Your task to perform on an android device: create a new album in the google photos Image 0: 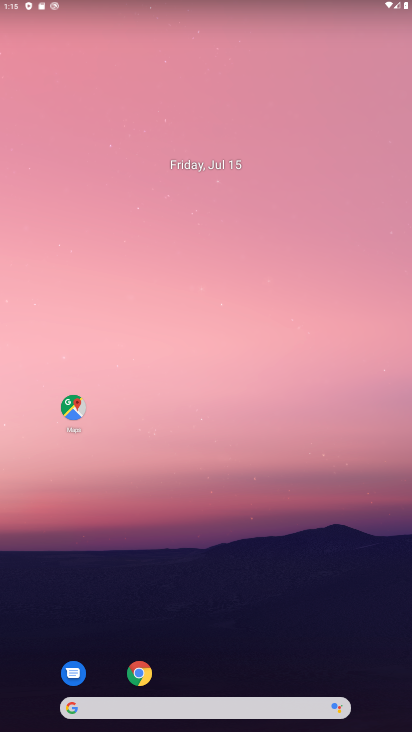
Step 0: drag from (252, 550) to (111, 49)
Your task to perform on an android device: create a new album in the google photos Image 1: 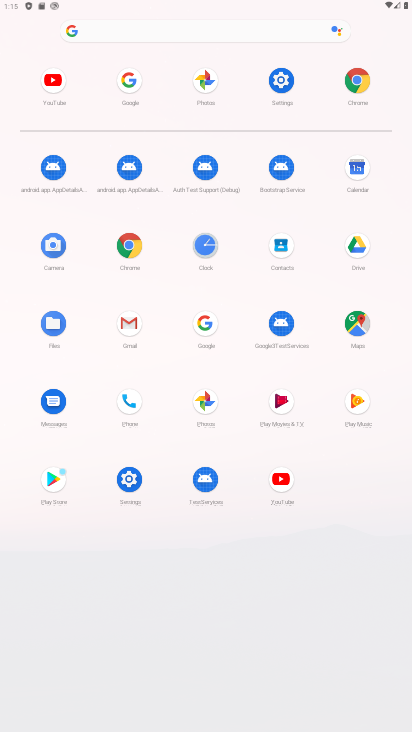
Step 1: click (192, 396)
Your task to perform on an android device: create a new album in the google photos Image 2: 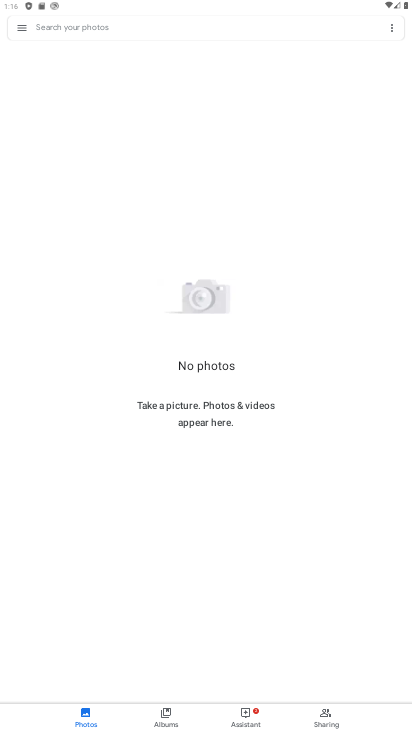
Step 2: click (168, 718)
Your task to perform on an android device: create a new album in the google photos Image 3: 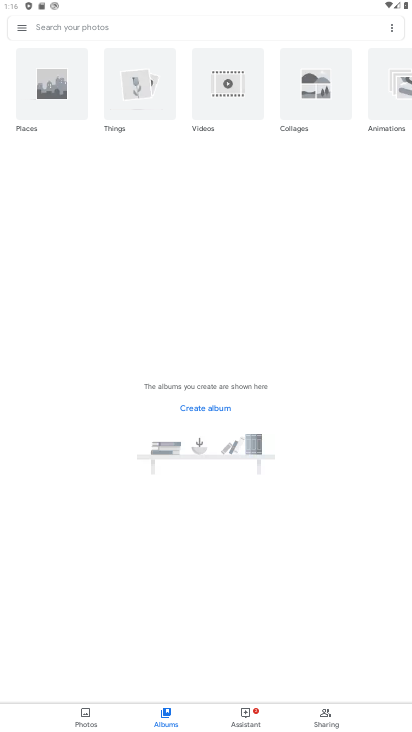
Step 3: drag from (321, 110) to (7, 107)
Your task to perform on an android device: create a new album in the google photos Image 4: 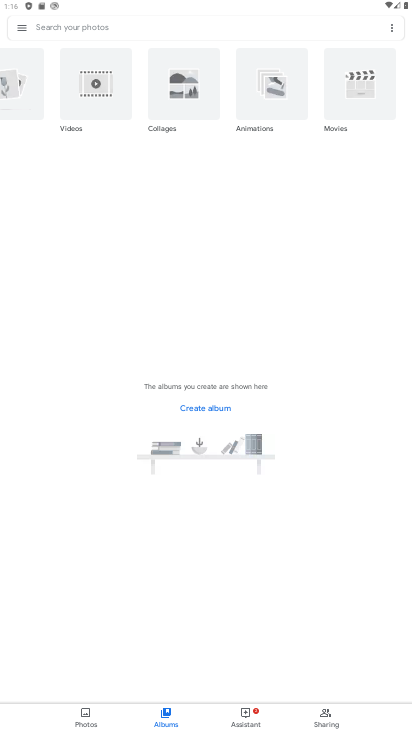
Step 4: drag from (359, 109) to (65, 144)
Your task to perform on an android device: create a new album in the google photos Image 5: 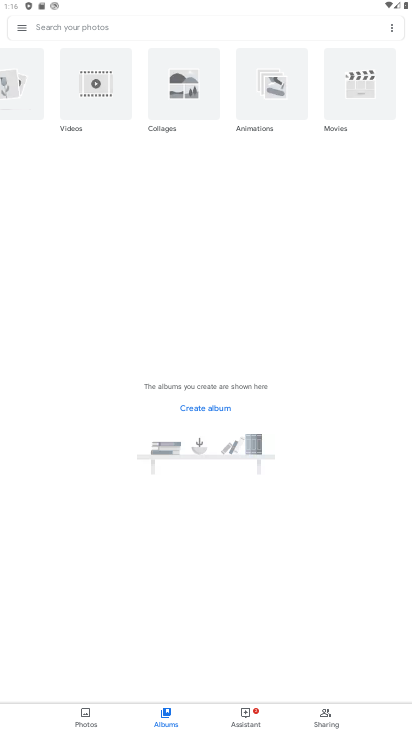
Step 5: click (184, 407)
Your task to perform on an android device: create a new album in the google photos Image 6: 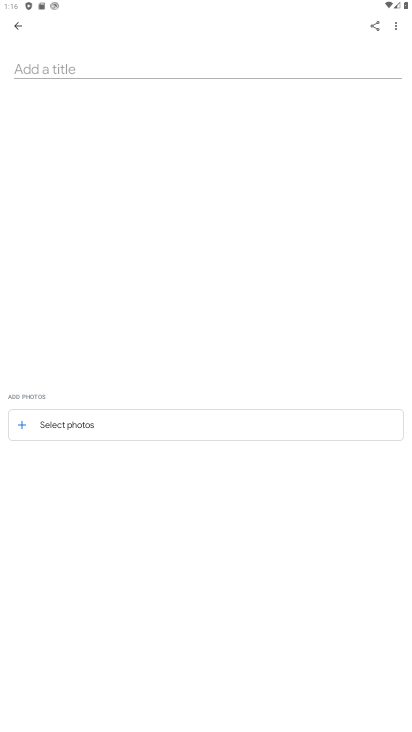
Step 6: click (113, 427)
Your task to perform on an android device: create a new album in the google photos Image 7: 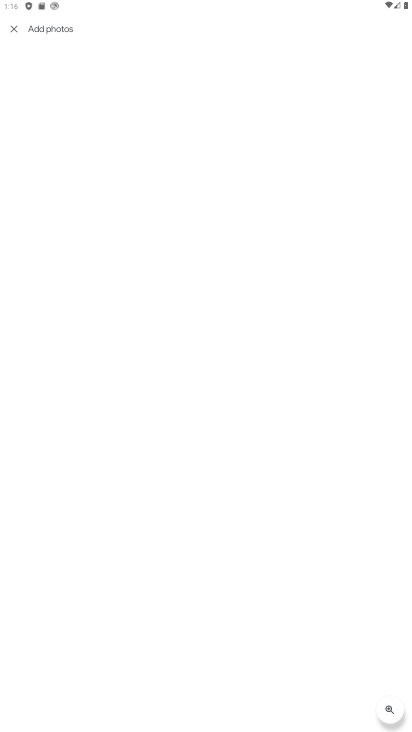
Step 7: task complete